Your task to perform on an android device: open device folders in google photos Image 0: 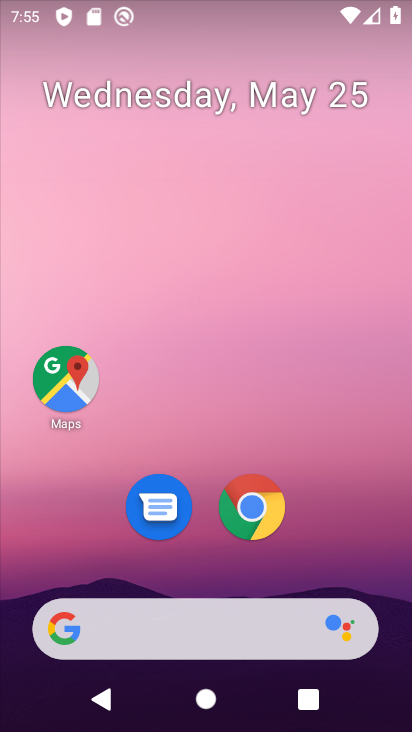
Step 0: drag from (216, 575) to (231, 13)
Your task to perform on an android device: open device folders in google photos Image 1: 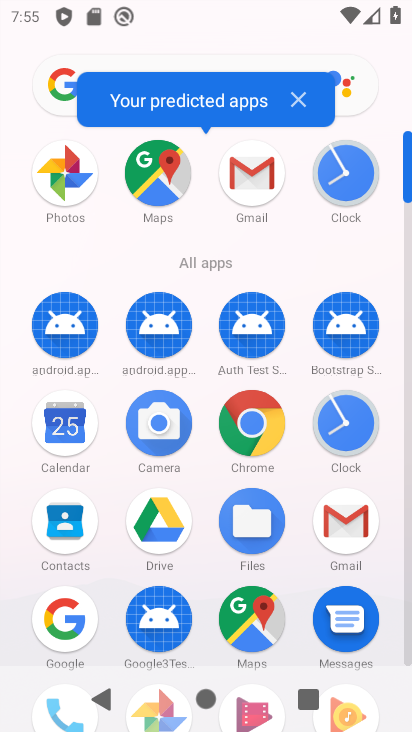
Step 1: click (86, 163)
Your task to perform on an android device: open device folders in google photos Image 2: 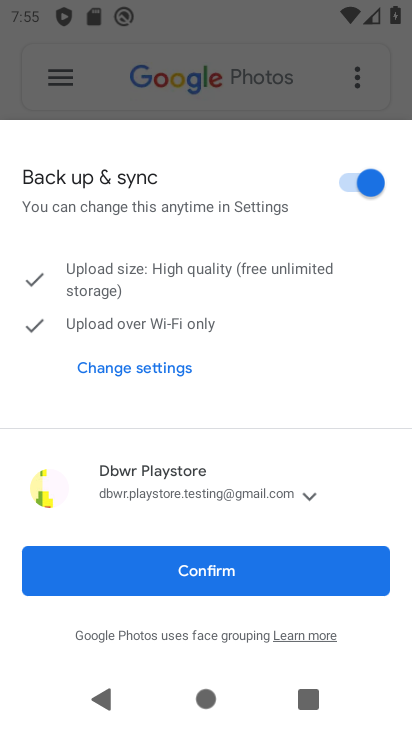
Step 2: click (280, 548)
Your task to perform on an android device: open device folders in google photos Image 3: 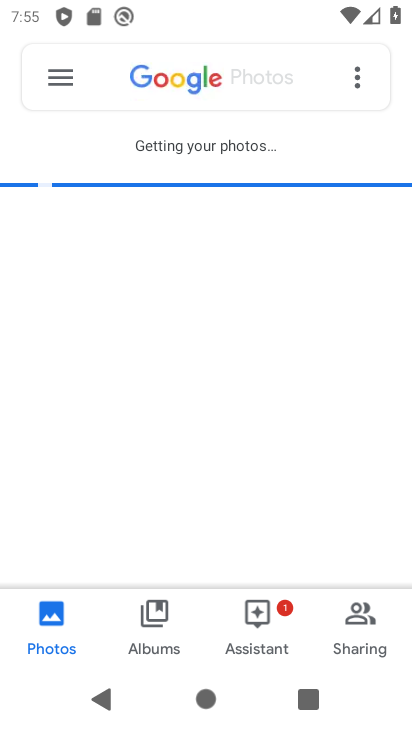
Step 3: click (54, 78)
Your task to perform on an android device: open device folders in google photos Image 4: 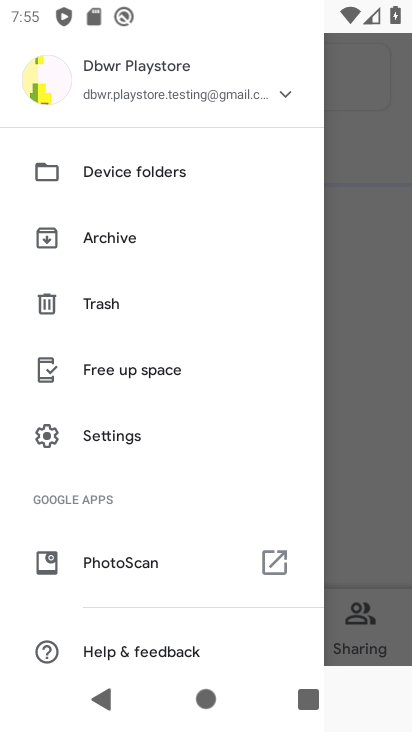
Step 4: click (67, 153)
Your task to perform on an android device: open device folders in google photos Image 5: 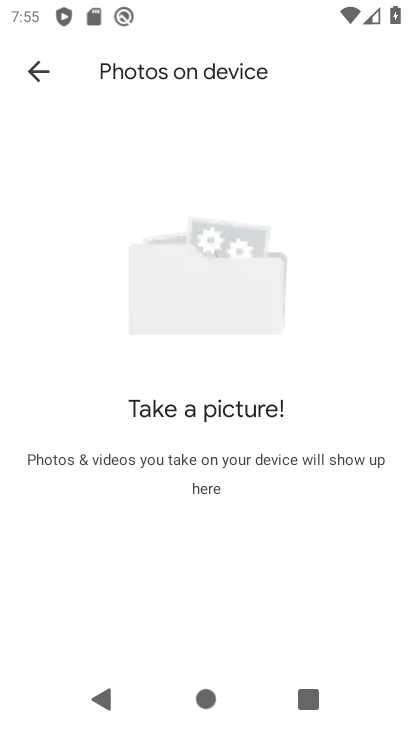
Step 5: task complete